Your task to perform on an android device: Set the phone to "Do not disturb". Image 0: 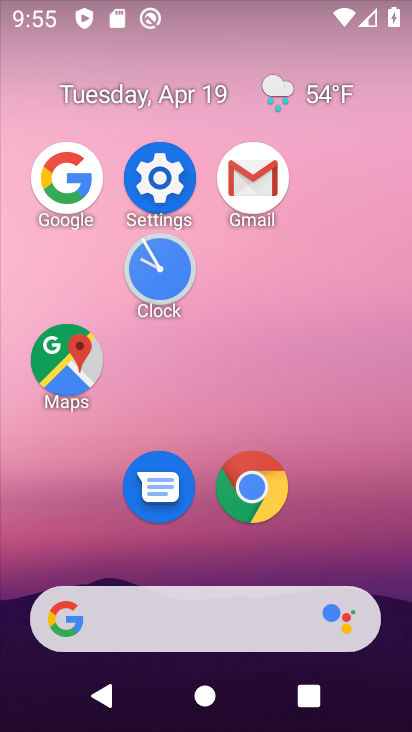
Step 0: click (179, 173)
Your task to perform on an android device: Set the phone to "Do not disturb". Image 1: 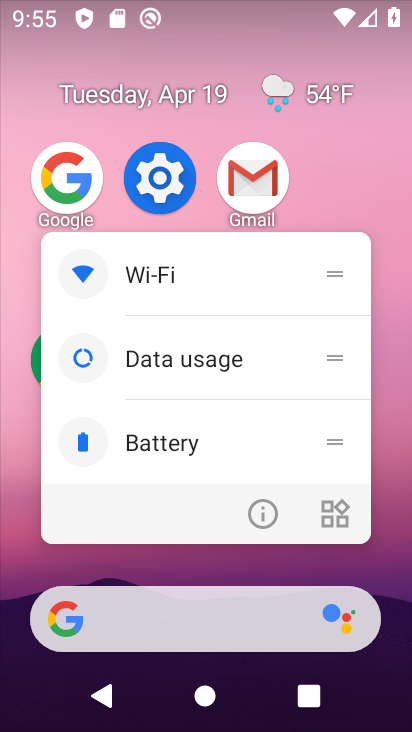
Step 1: click (170, 173)
Your task to perform on an android device: Set the phone to "Do not disturb". Image 2: 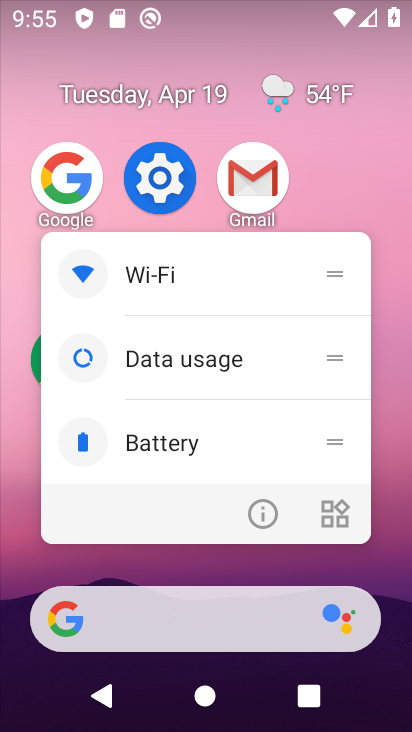
Step 2: click (161, 168)
Your task to perform on an android device: Set the phone to "Do not disturb". Image 3: 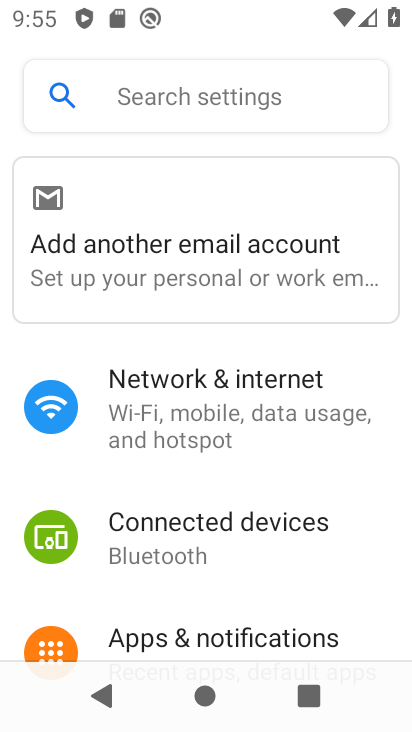
Step 3: drag from (244, 529) to (253, 19)
Your task to perform on an android device: Set the phone to "Do not disturb". Image 4: 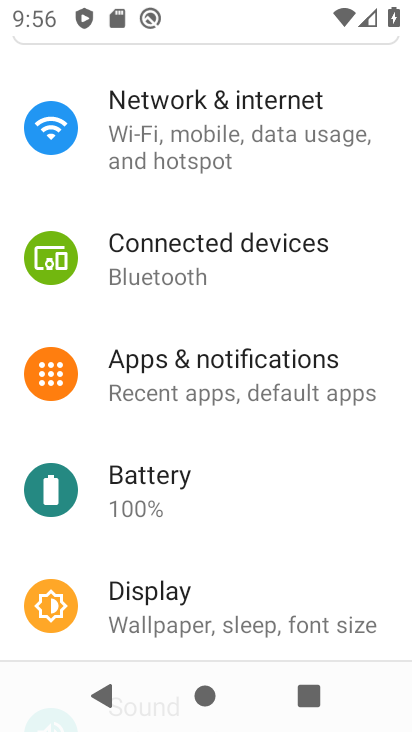
Step 4: drag from (255, 501) to (319, 103)
Your task to perform on an android device: Set the phone to "Do not disturb". Image 5: 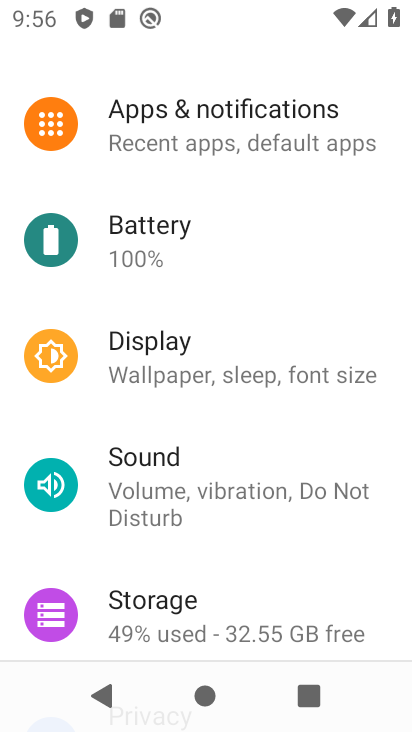
Step 5: click (257, 472)
Your task to perform on an android device: Set the phone to "Do not disturb". Image 6: 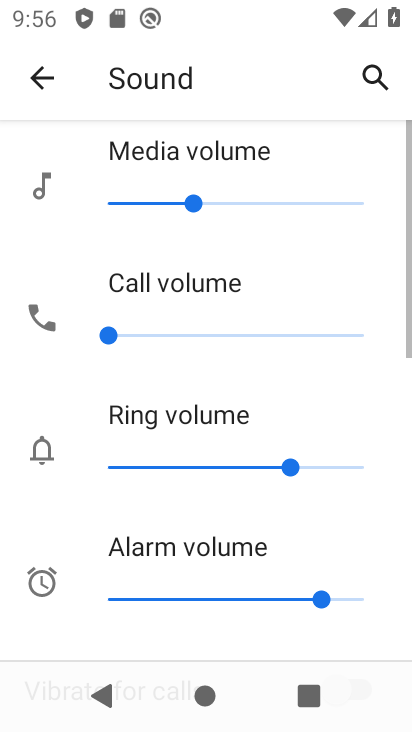
Step 6: drag from (245, 472) to (310, 68)
Your task to perform on an android device: Set the phone to "Do not disturb". Image 7: 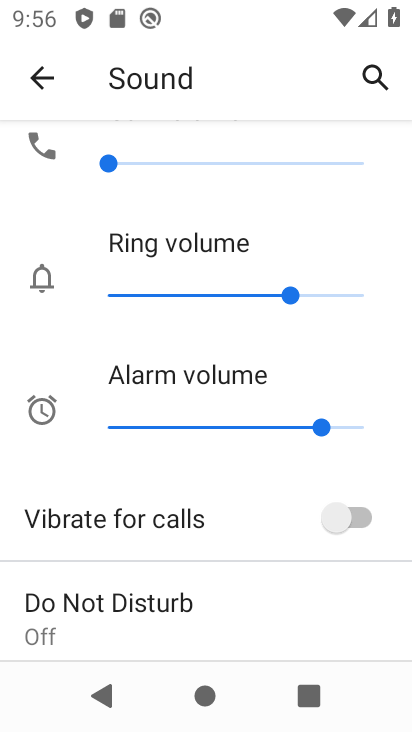
Step 7: click (173, 618)
Your task to perform on an android device: Set the phone to "Do not disturb". Image 8: 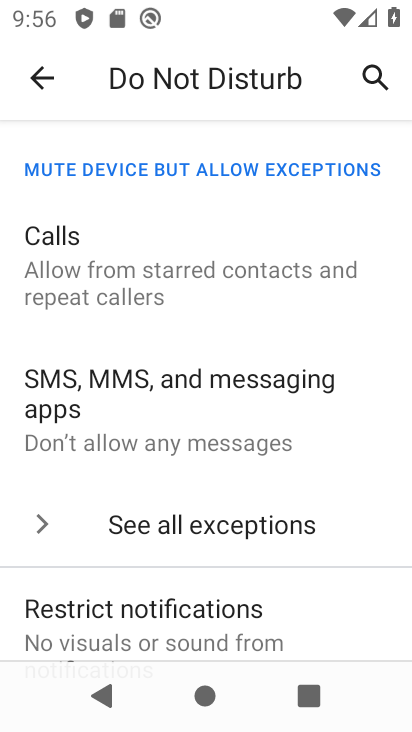
Step 8: drag from (206, 453) to (299, 76)
Your task to perform on an android device: Set the phone to "Do not disturb". Image 9: 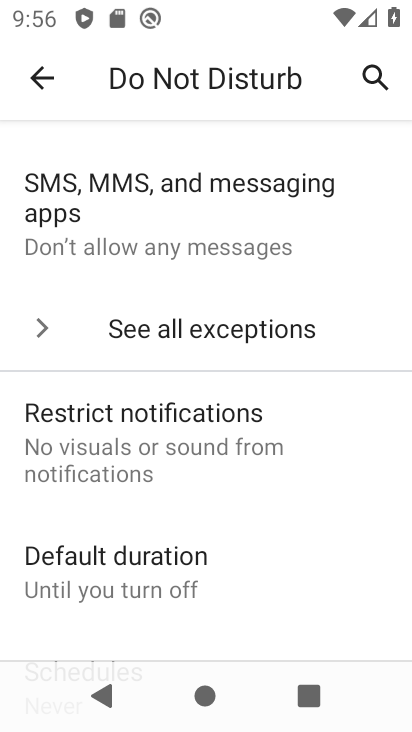
Step 9: drag from (177, 537) to (263, 101)
Your task to perform on an android device: Set the phone to "Do not disturb". Image 10: 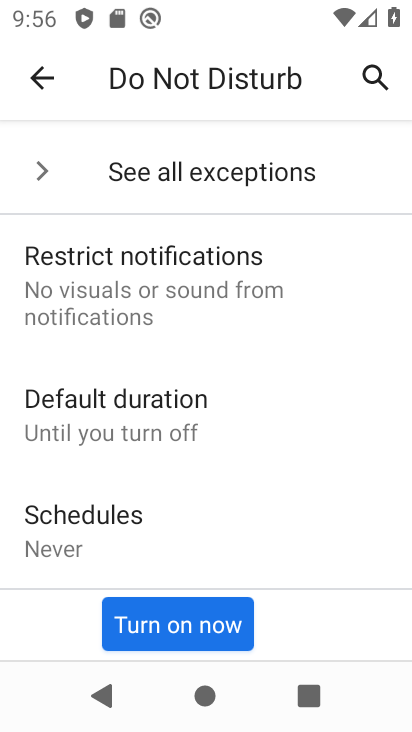
Step 10: click (160, 627)
Your task to perform on an android device: Set the phone to "Do not disturb". Image 11: 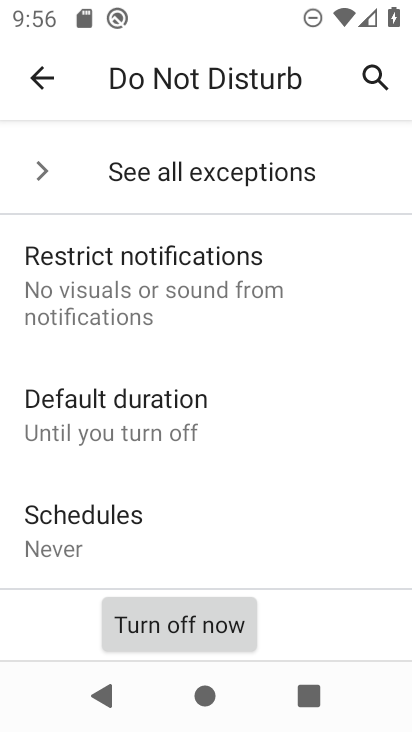
Step 11: task complete